Your task to perform on an android device: Search for Italian restaurants on Maps Image 0: 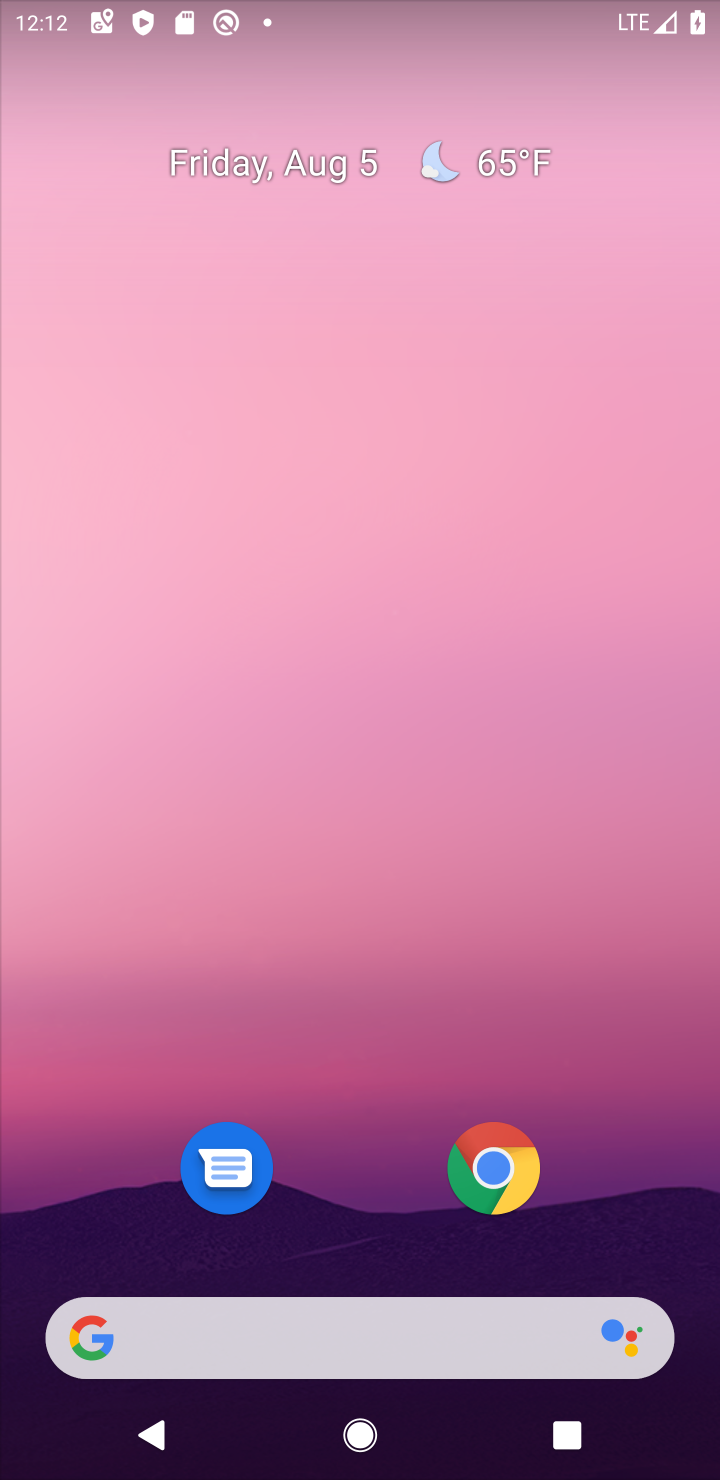
Step 0: drag from (653, 1144) to (316, 61)
Your task to perform on an android device: Search for Italian restaurants on Maps Image 1: 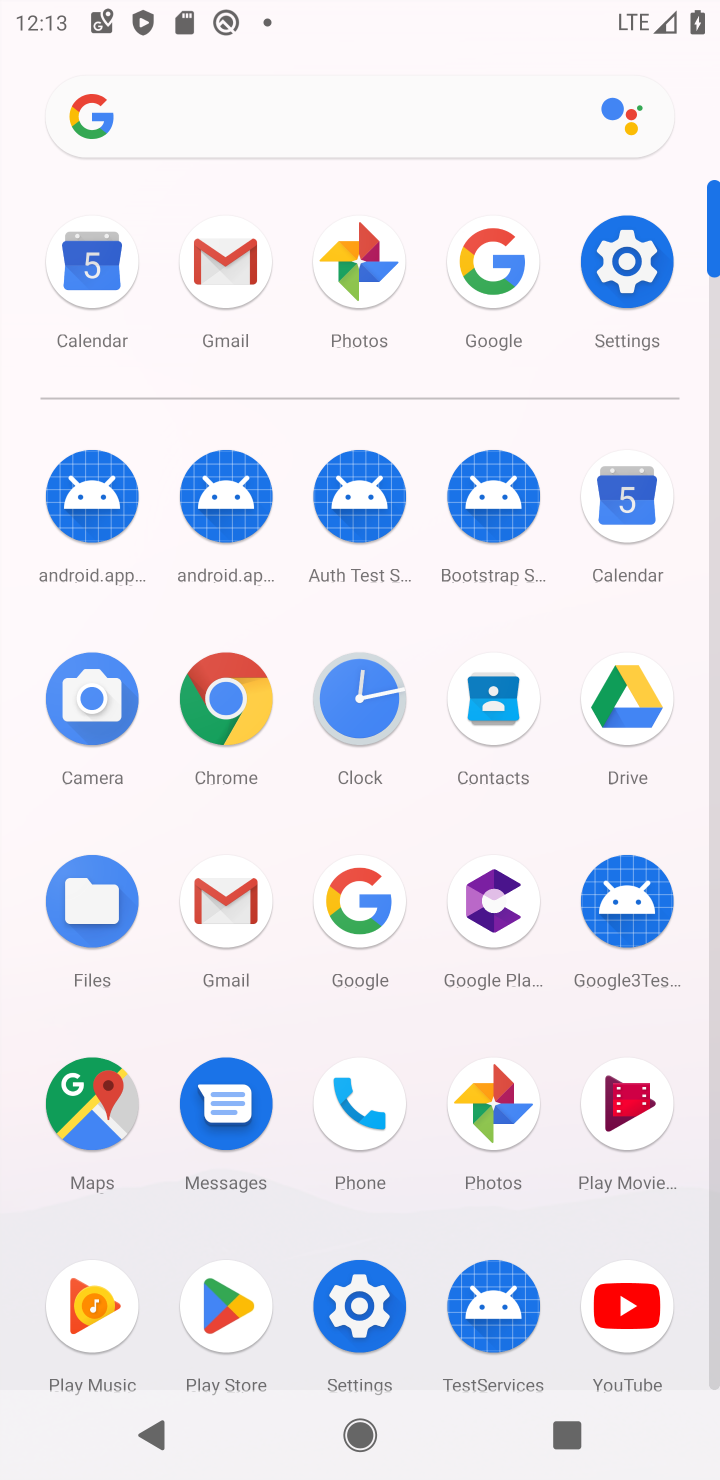
Step 1: click (108, 1097)
Your task to perform on an android device: Search for Italian restaurants on Maps Image 2: 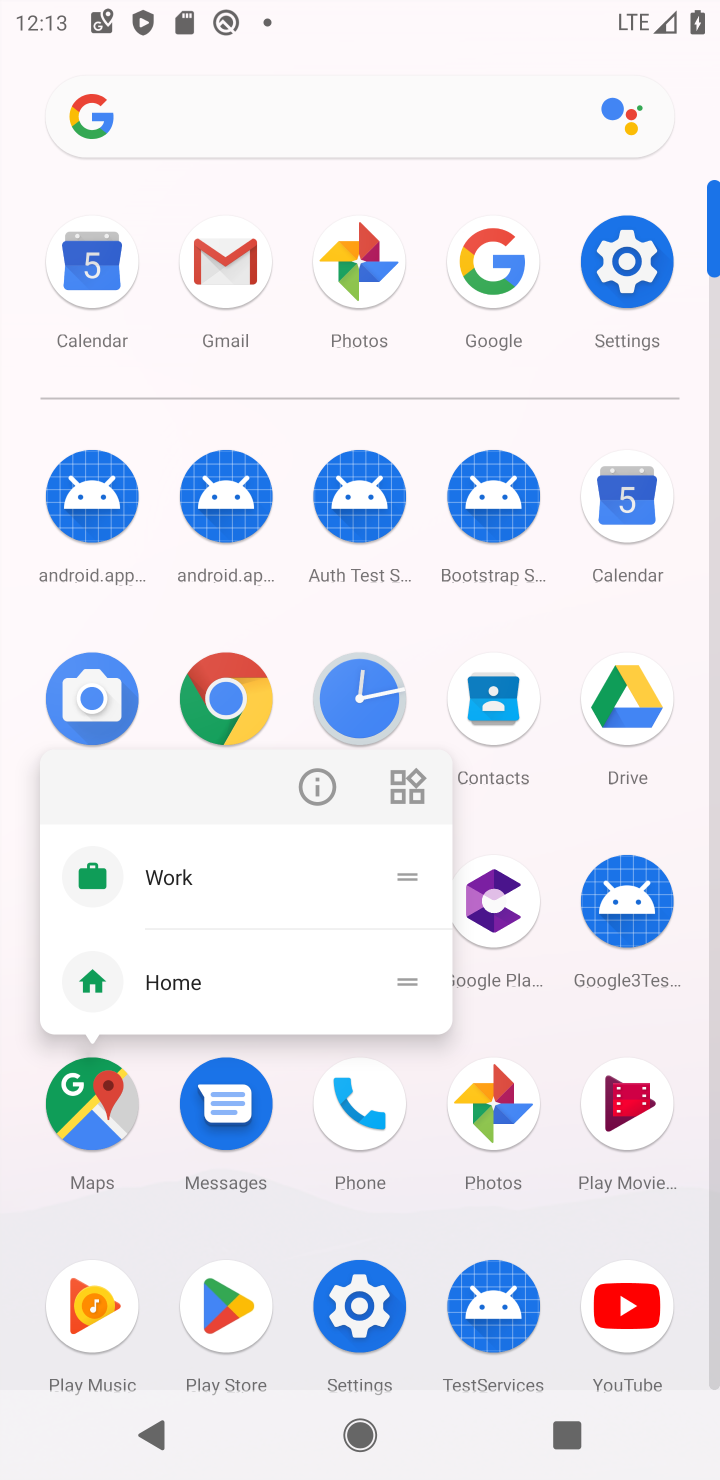
Step 2: click (106, 1095)
Your task to perform on an android device: Search for Italian restaurants on Maps Image 3: 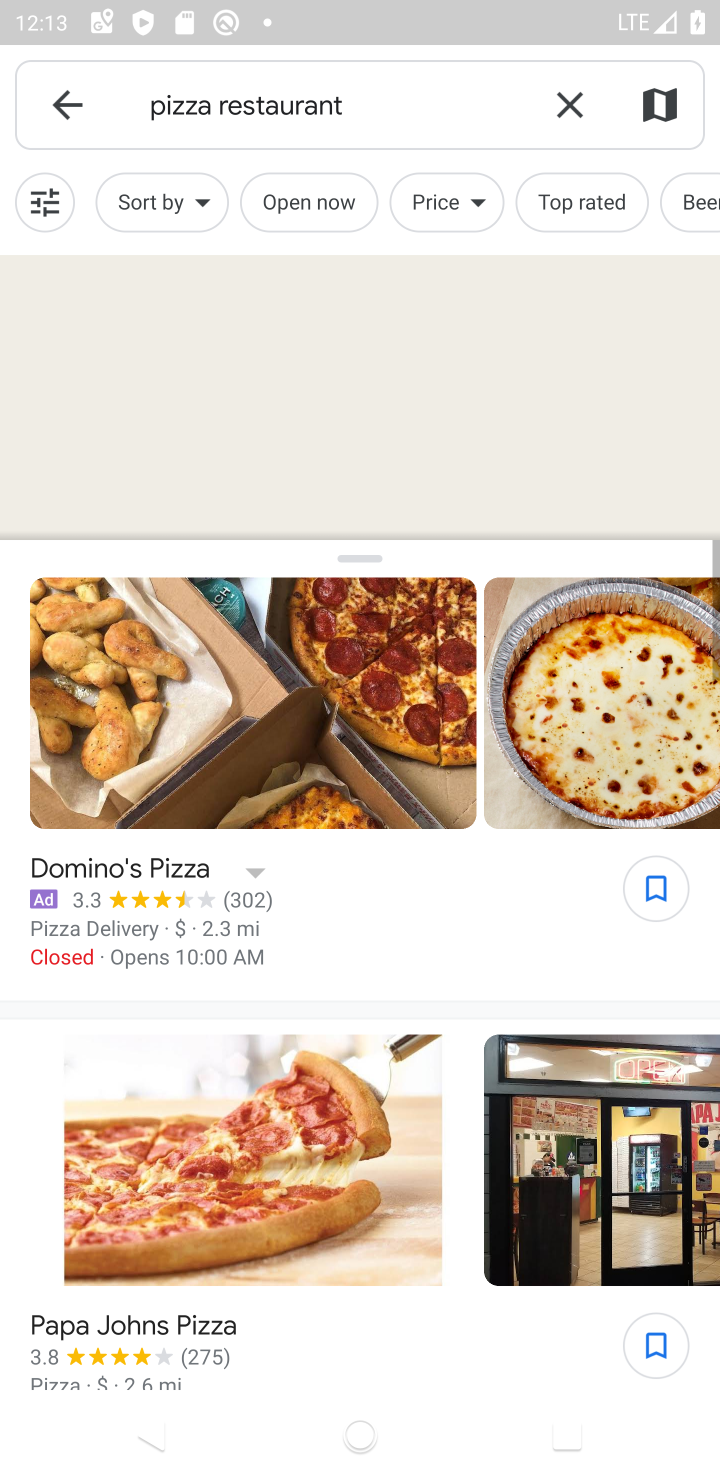
Step 3: click (581, 93)
Your task to perform on an android device: Search for Italian restaurants on Maps Image 4: 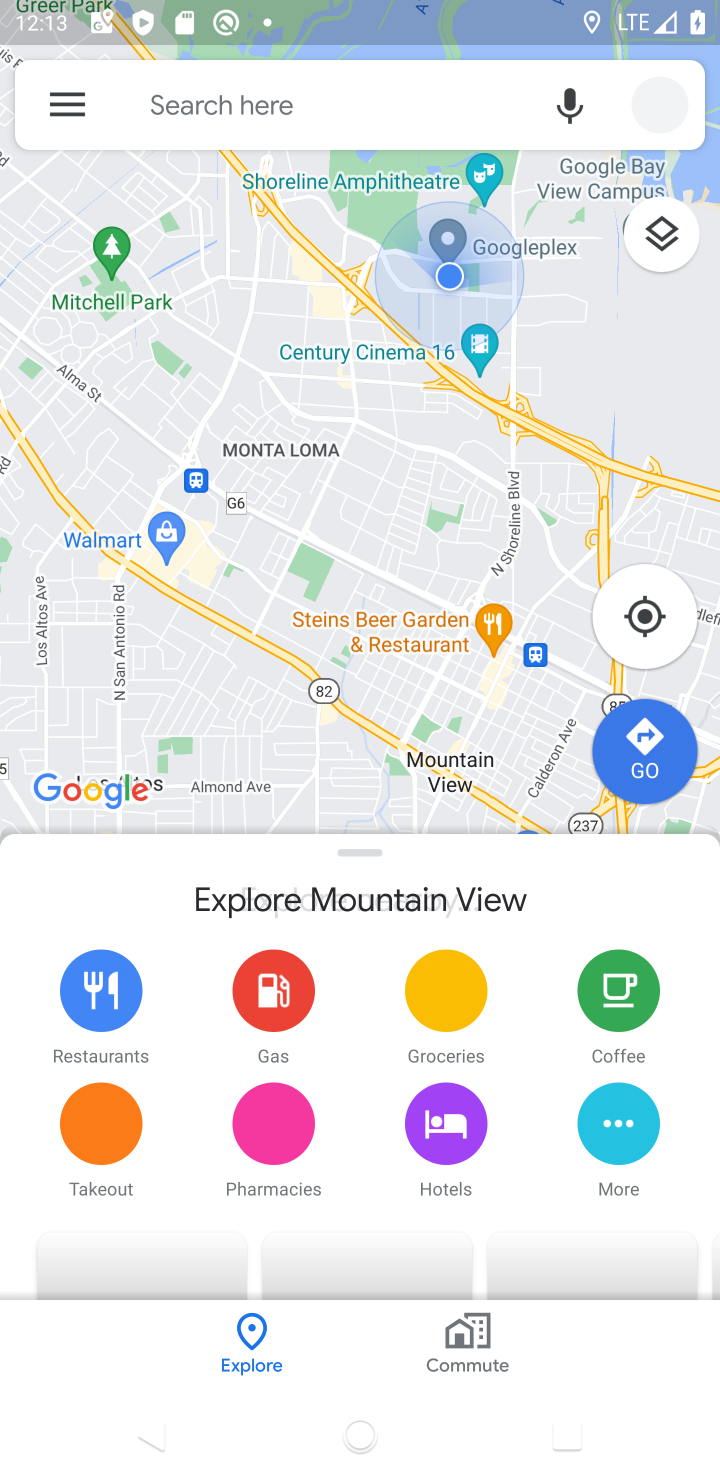
Step 4: click (260, 120)
Your task to perform on an android device: Search for Italian restaurants on Maps Image 5: 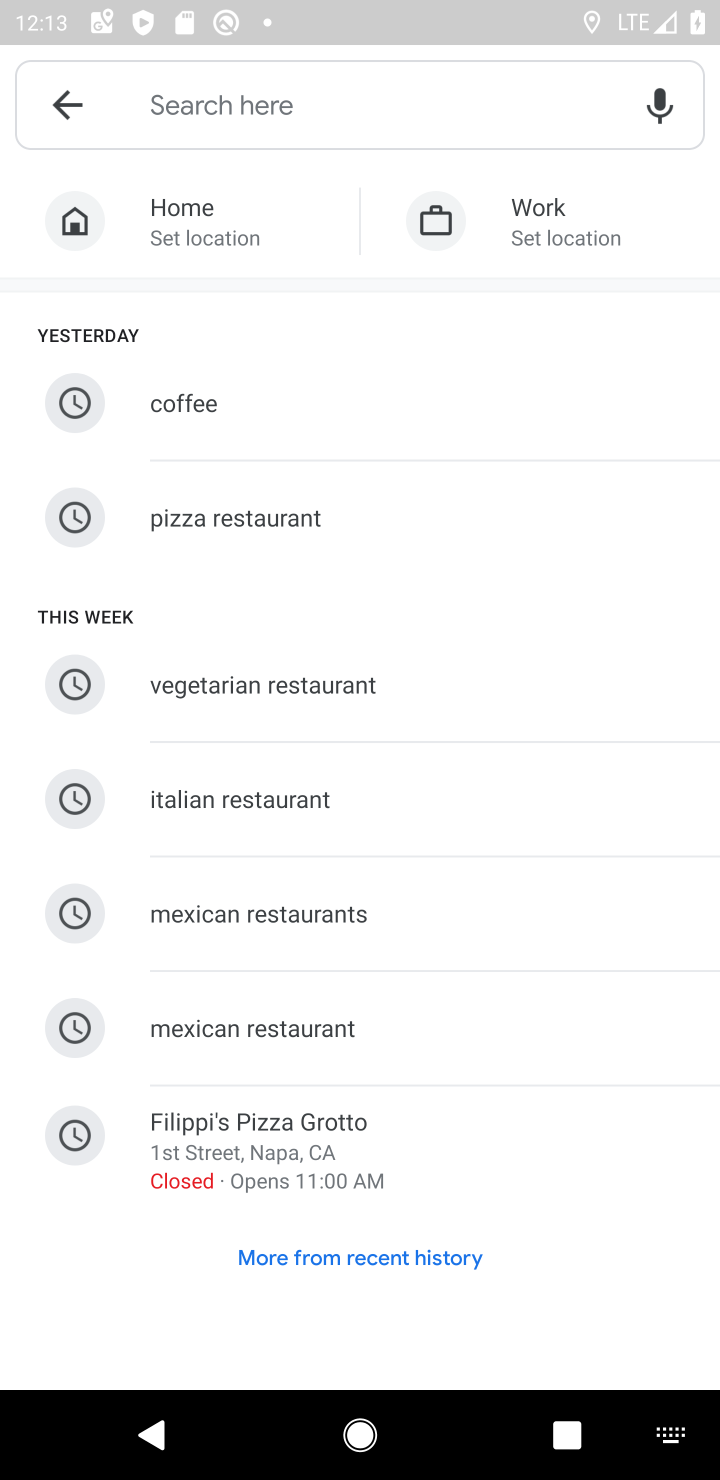
Step 5: click (217, 807)
Your task to perform on an android device: Search for Italian restaurants on Maps Image 6: 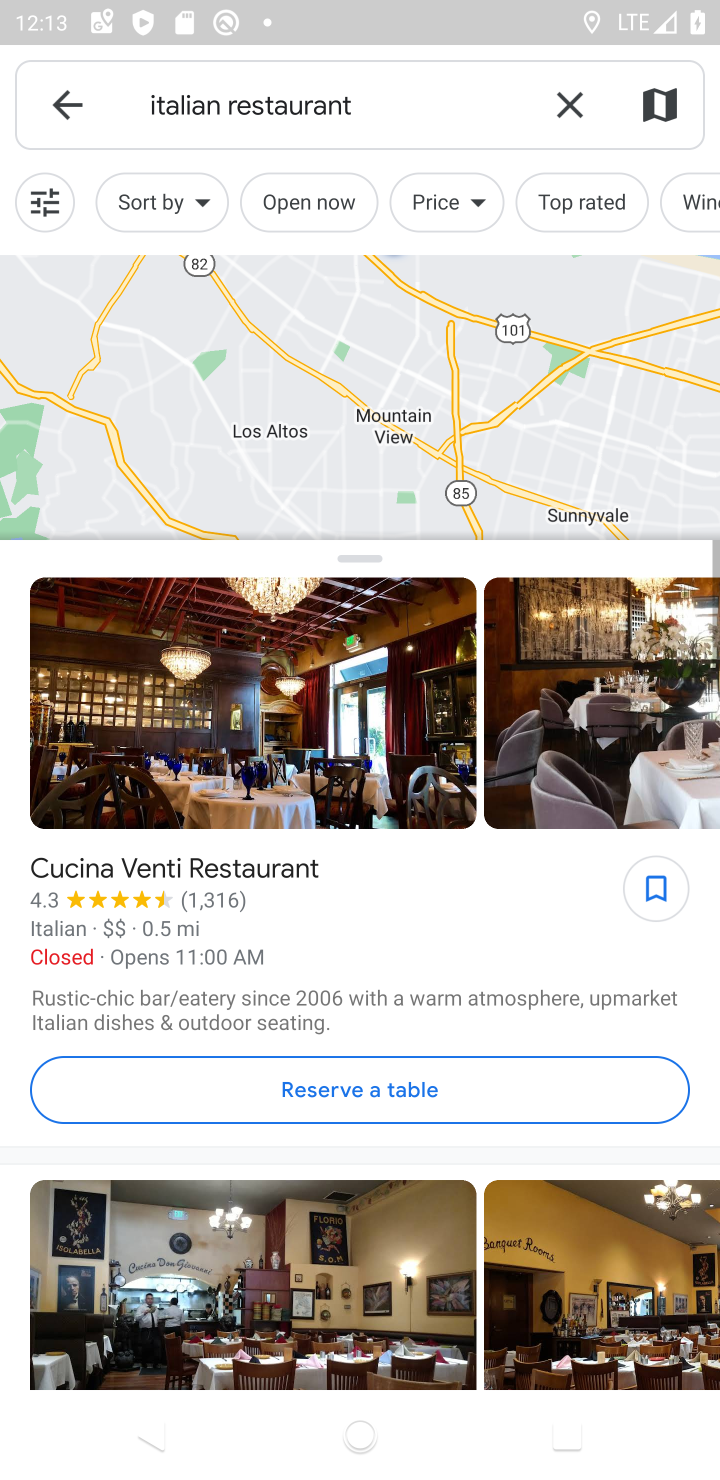
Step 6: task complete